Your task to perform on an android device: Toggle the flashlight Image 0: 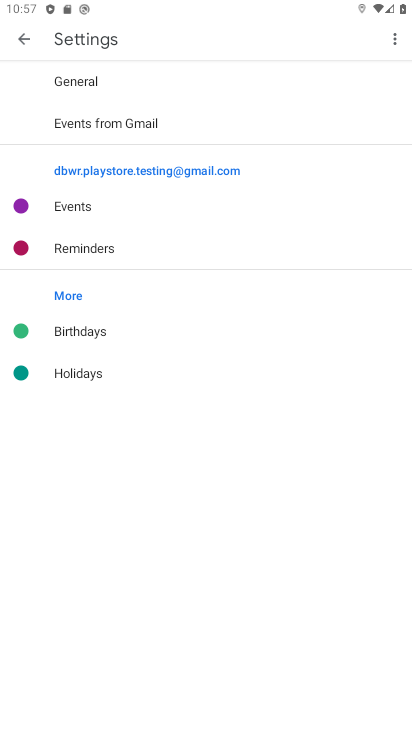
Step 0: press home button
Your task to perform on an android device: Toggle the flashlight Image 1: 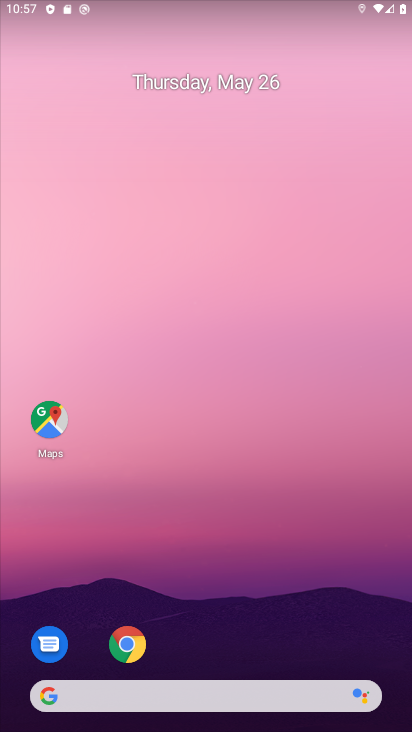
Step 1: drag from (200, 9) to (217, 688)
Your task to perform on an android device: Toggle the flashlight Image 2: 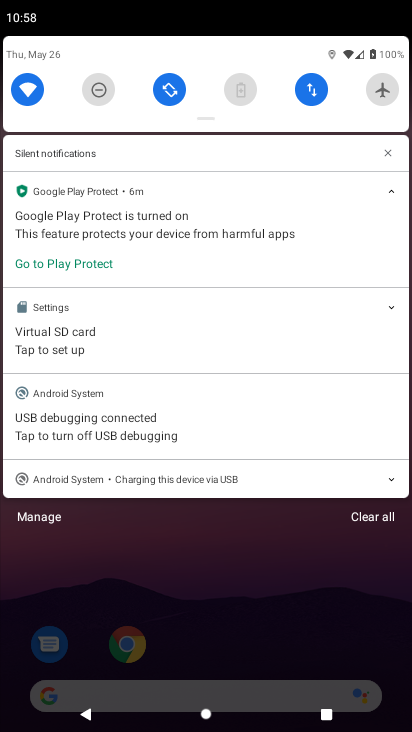
Step 2: drag from (197, 117) to (238, 558)
Your task to perform on an android device: Toggle the flashlight Image 3: 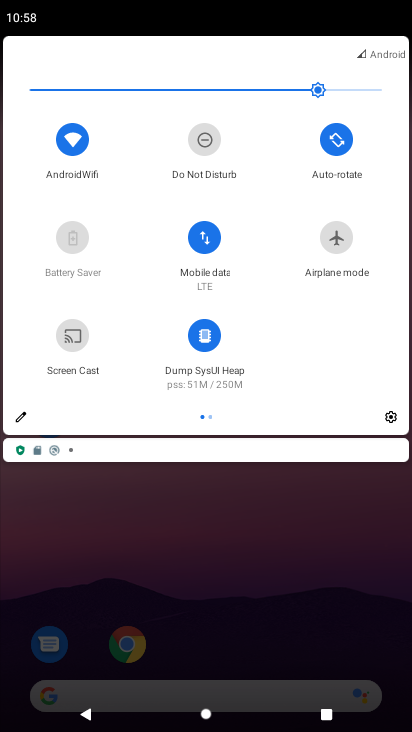
Step 3: click (12, 416)
Your task to perform on an android device: Toggle the flashlight Image 4: 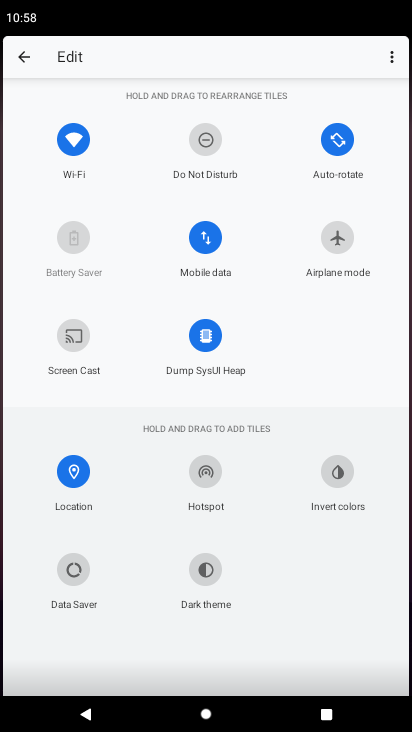
Step 4: task complete